Your task to perform on an android device: set the stopwatch Image 0: 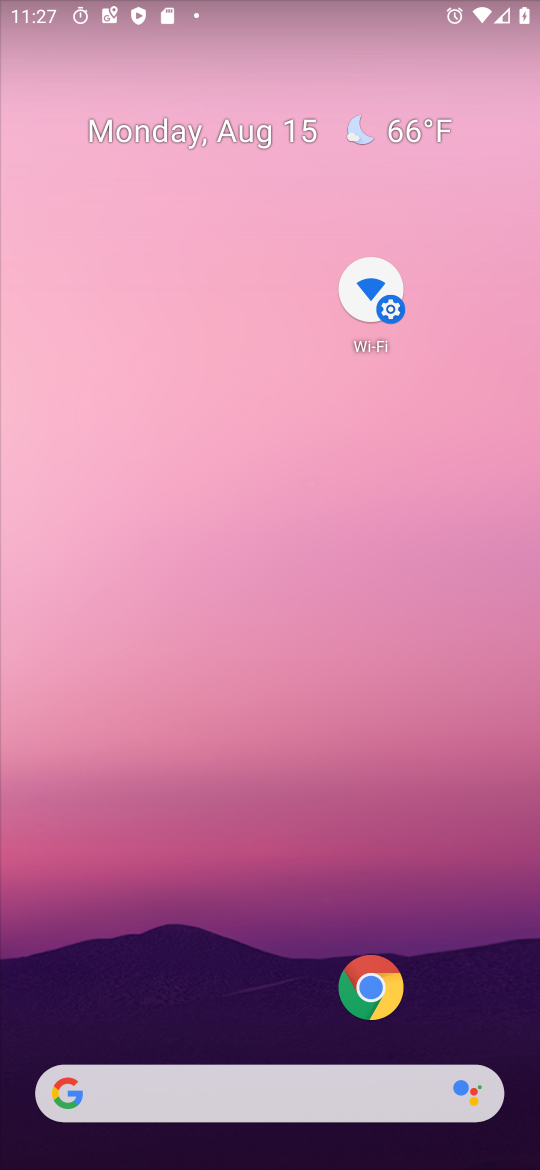
Step 0: drag from (324, 1039) to (234, 216)
Your task to perform on an android device: set the stopwatch Image 1: 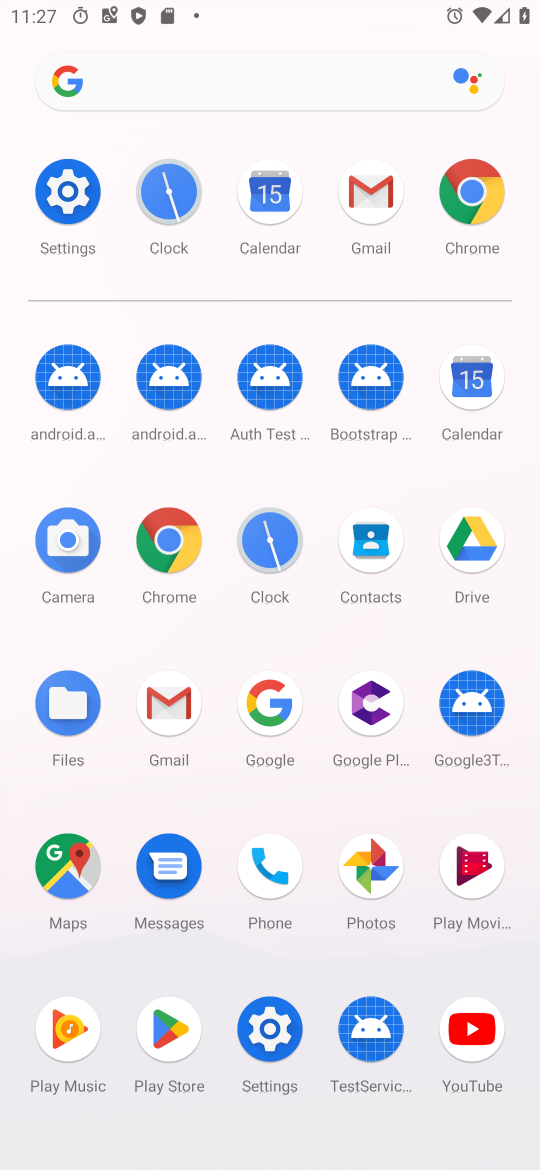
Step 1: click (174, 182)
Your task to perform on an android device: set the stopwatch Image 2: 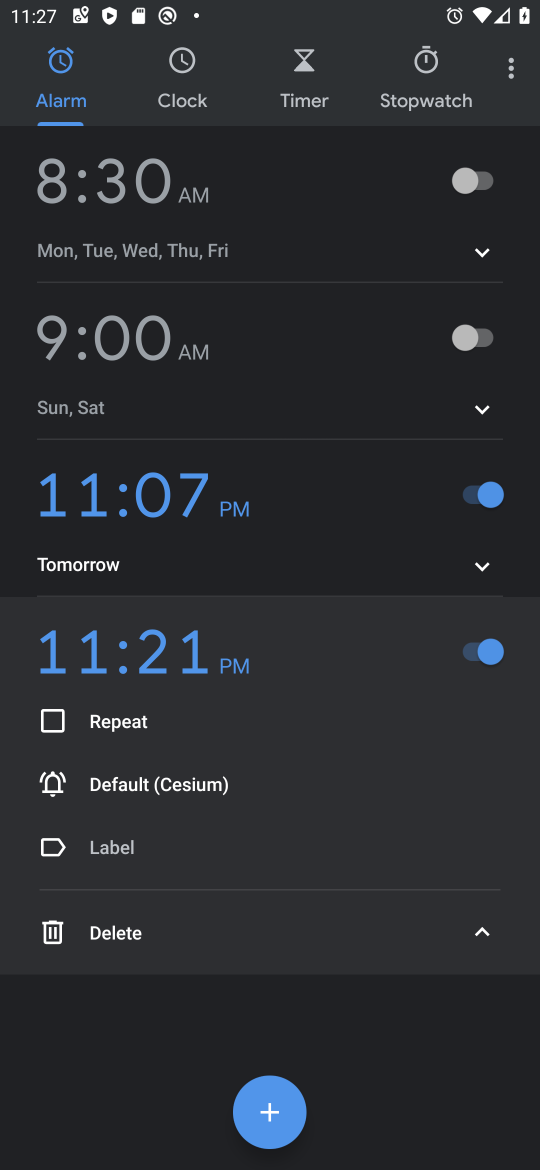
Step 2: click (458, 90)
Your task to perform on an android device: set the stopwatch Image 3: 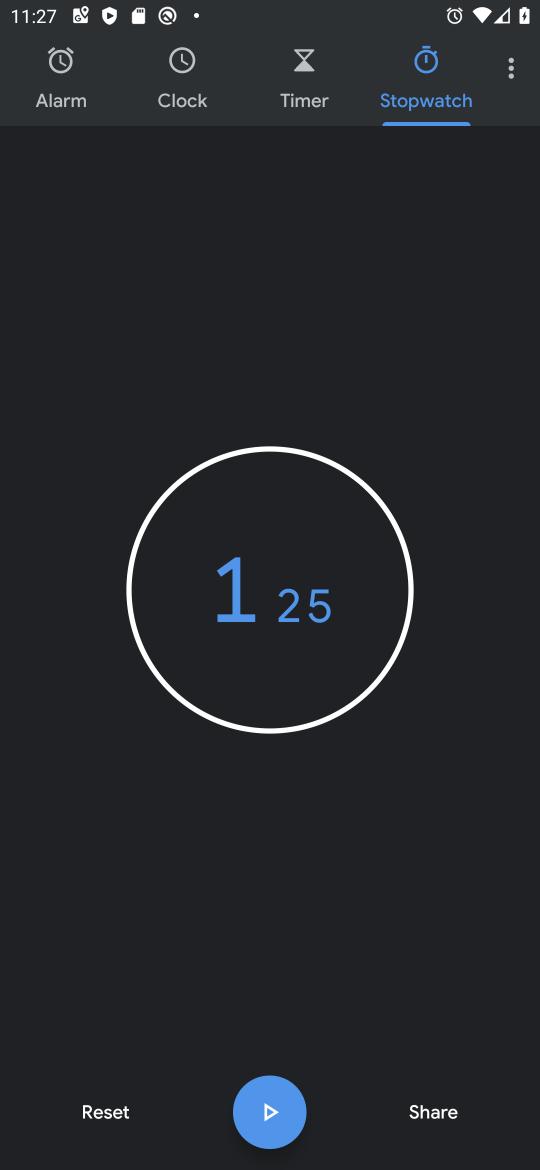
Step 3: click (267, 1107)
Your task to perform on an android device: set the stopwatch Image 4: 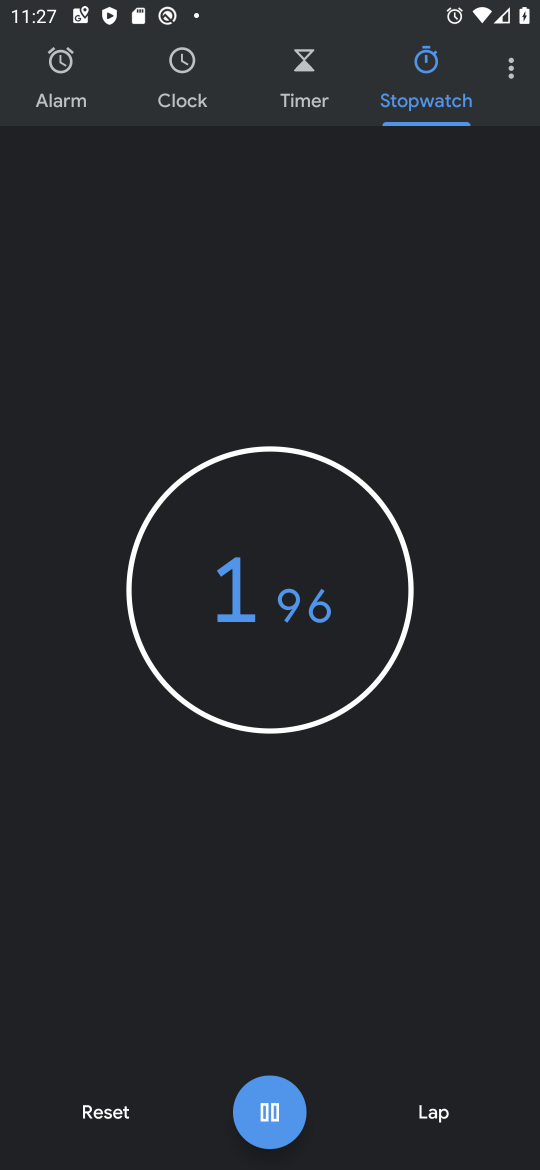
Step 4: click (268, 1108)
Your task to perform on an android device: set the stopwatch Image 5: 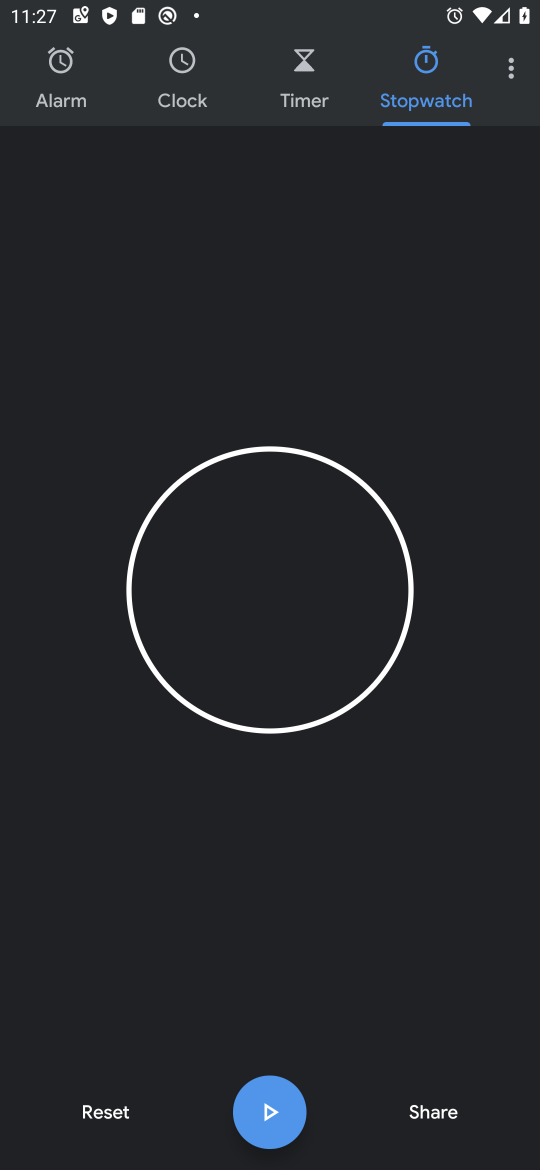
Step 5: task complete